Your task to perform on an android device: Open accessibility settings Image 0: 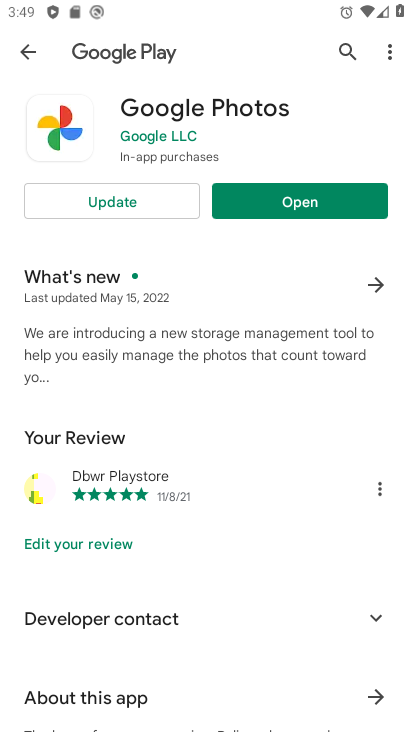
Step 0: press home button
Your task to perform on an android device: Open accessibility settings Image 1: 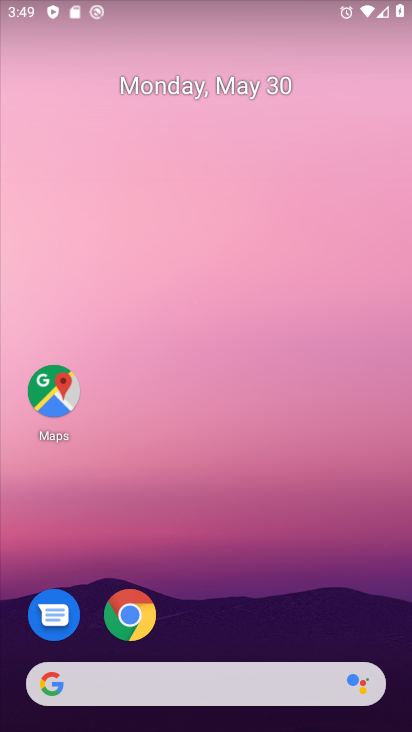
Step 1: drag from (224, 593) to (247, 74)
Your task to perform on an android device: Open accessibility settings Image 2: 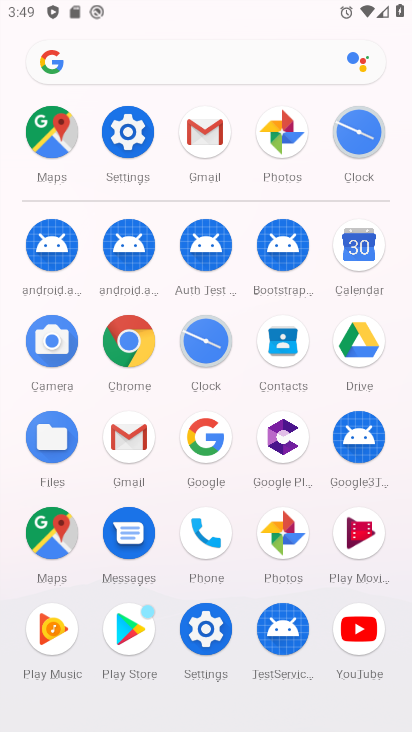
Step 2: click (124, 133)
Your task to perform on an android device: Open accessibility settings Image 3: 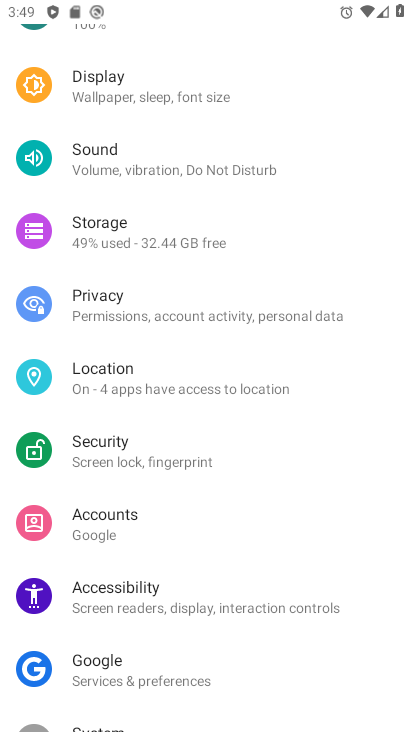
Step 3: click (206, 597)
Your task to perform on an android device: Open accessibility settings Image 4: 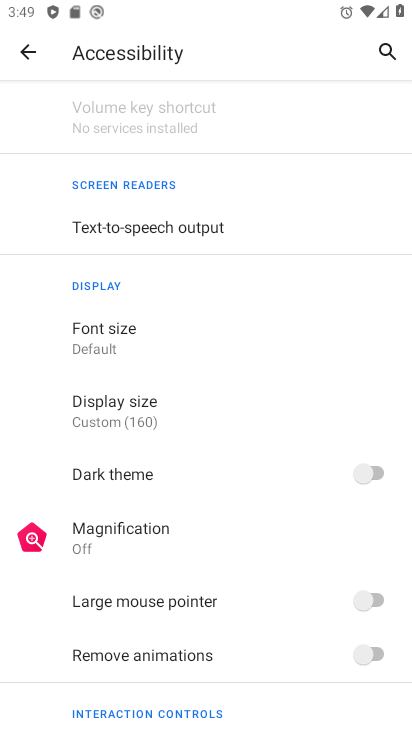
Step 4: task complete